Your task to perform on an android device: Search for "macbook" on target, select the first entry, add it to the cart, then select checkout. Image 0: 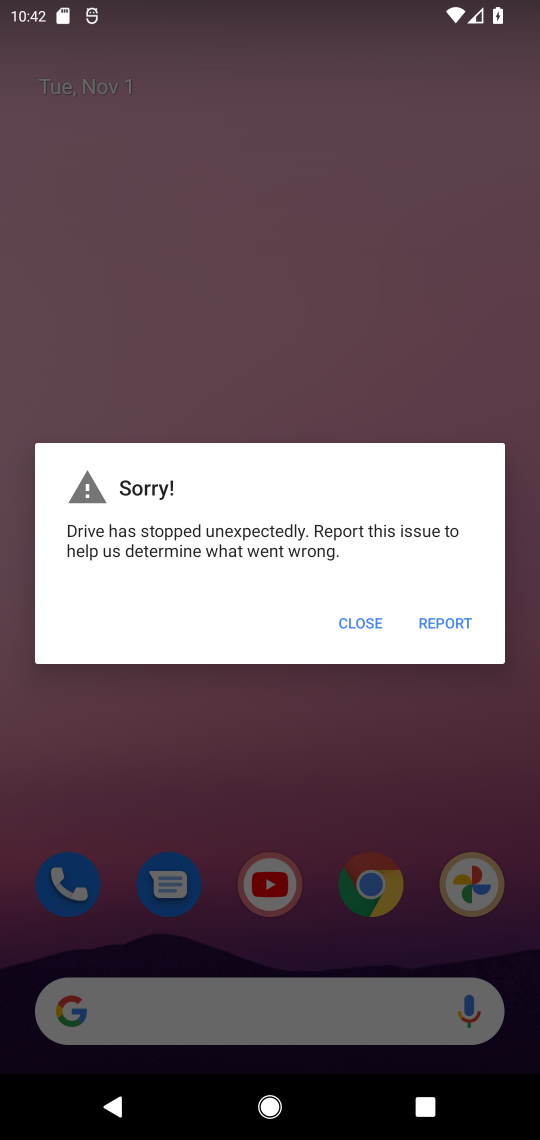
Step 0: press home button
Your task to perform on an android device: Search for "macbook" on target, select the first entry, add it to the cart, then select checkout. Image 1: 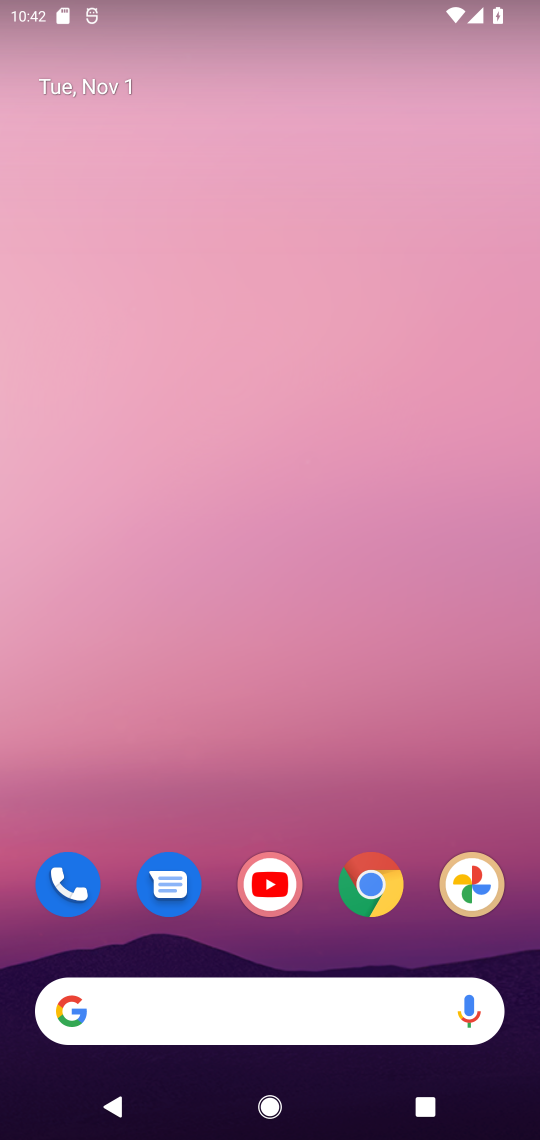
Step 1: click (359, 895)
Your task to perform on an android device: Search for "macbook" on target, select the first entry, add it to the cart, then select checkout. Image 2: 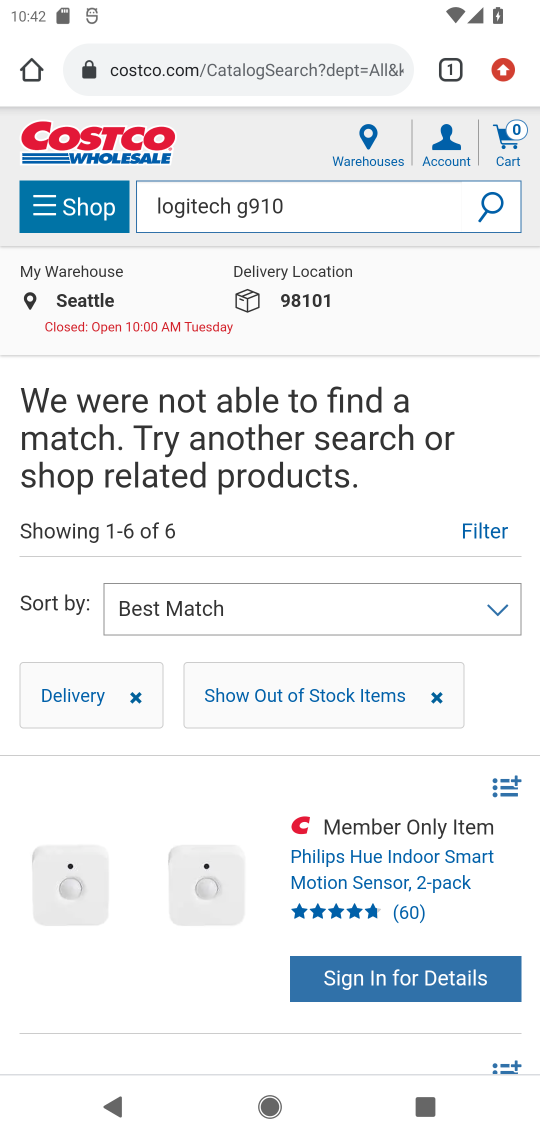
Step 2: click (216, 69)
Your task to perform on an android device: Search for "macbook" on target, select the first entry, add it to the cart, then select checkout. Image 3: 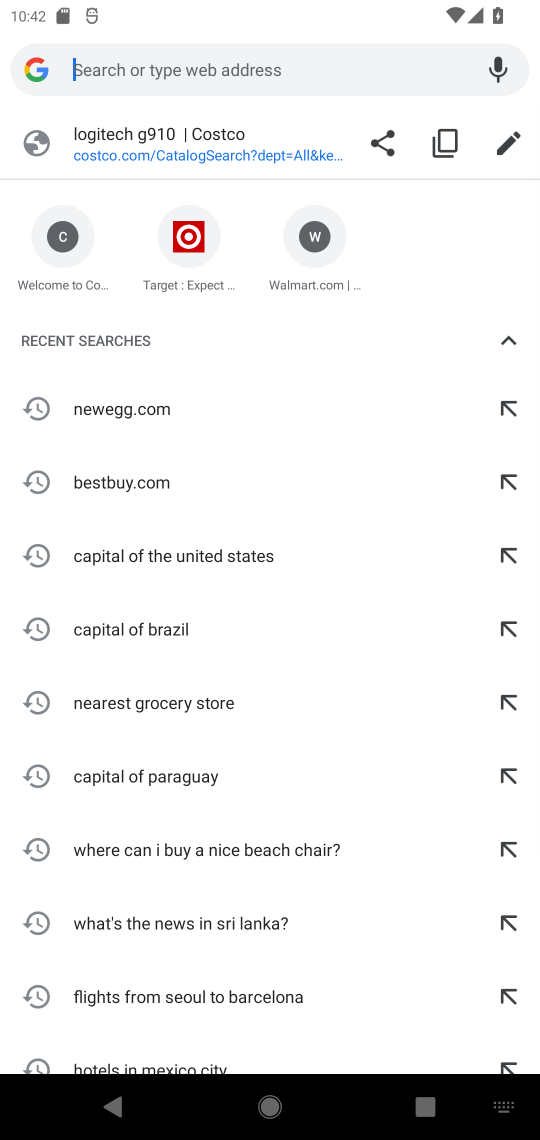
Step 3: click (193, 234)
Your task to perform on an android device: Search for "macbook" on target, select the first entry, add it to the cart, then select checkout. Image 4: 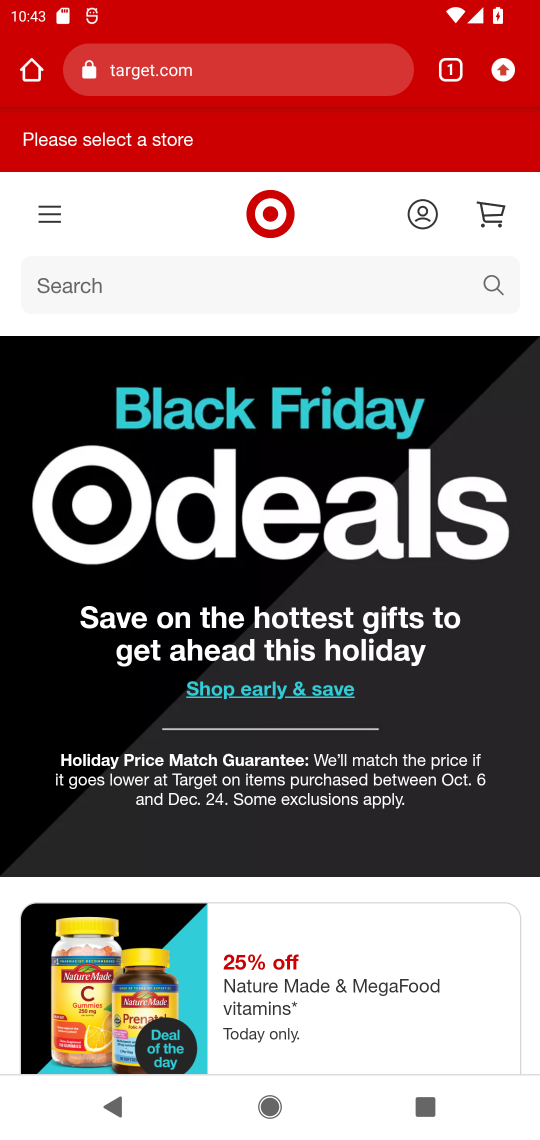
Step 4: click (492, 288)
Your task to perform on an android device: Search for "macbook" on target, select the first entry, add it to the cart, then select checkout. Image 5: 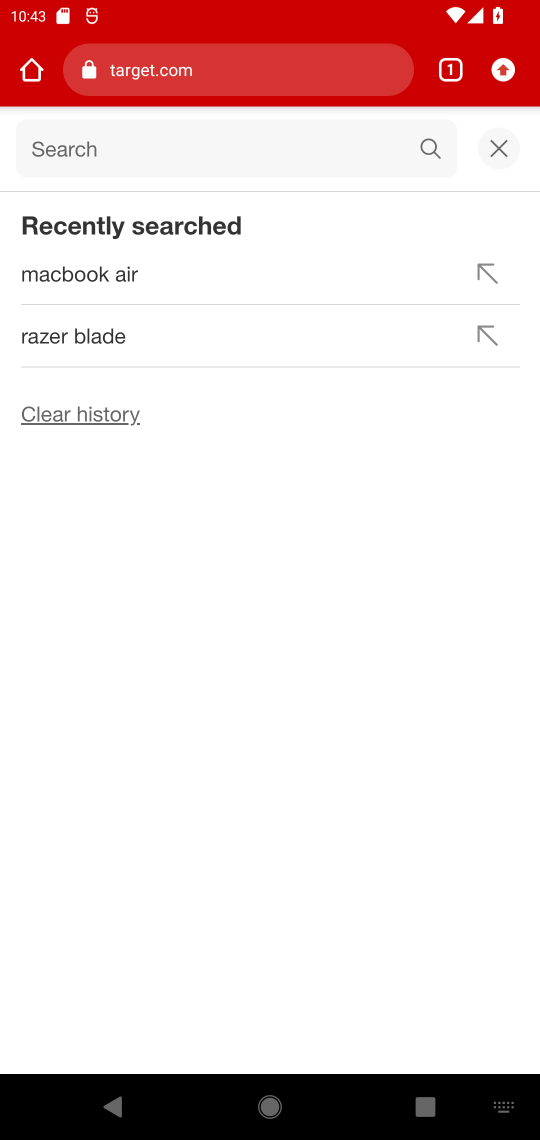
Step 5: type "macbook"
Your task to perform on an android device: Search for "macbook" on target, select the first entry, add it to the cart, then select checkout. Image 6: 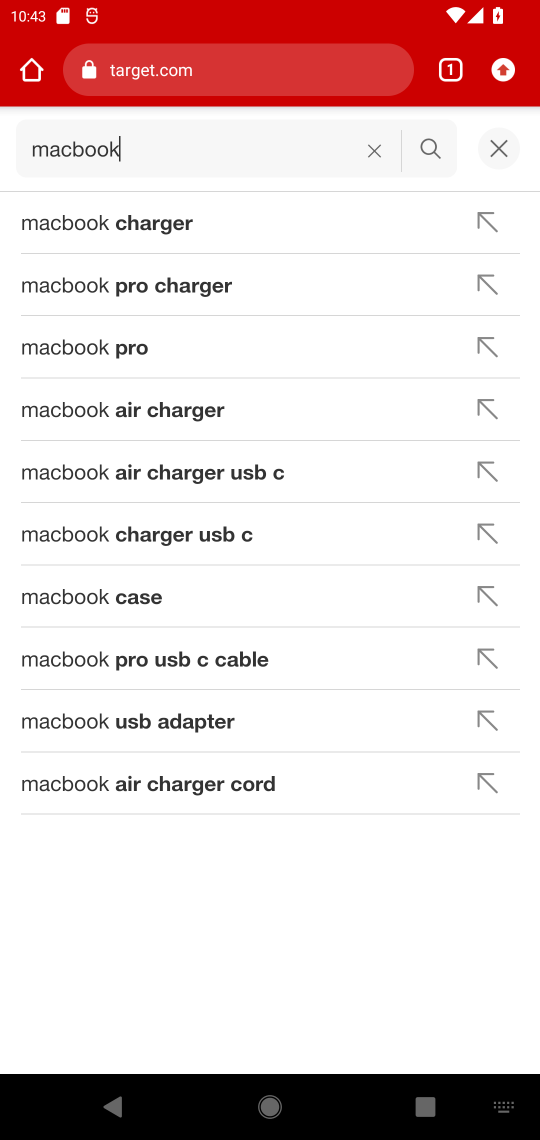
Step 6: click (429, 146)
Your task to perform on an android device: Search for "macbook" on target, select the first entry, add it to the cart, then select checkout. Image 7: 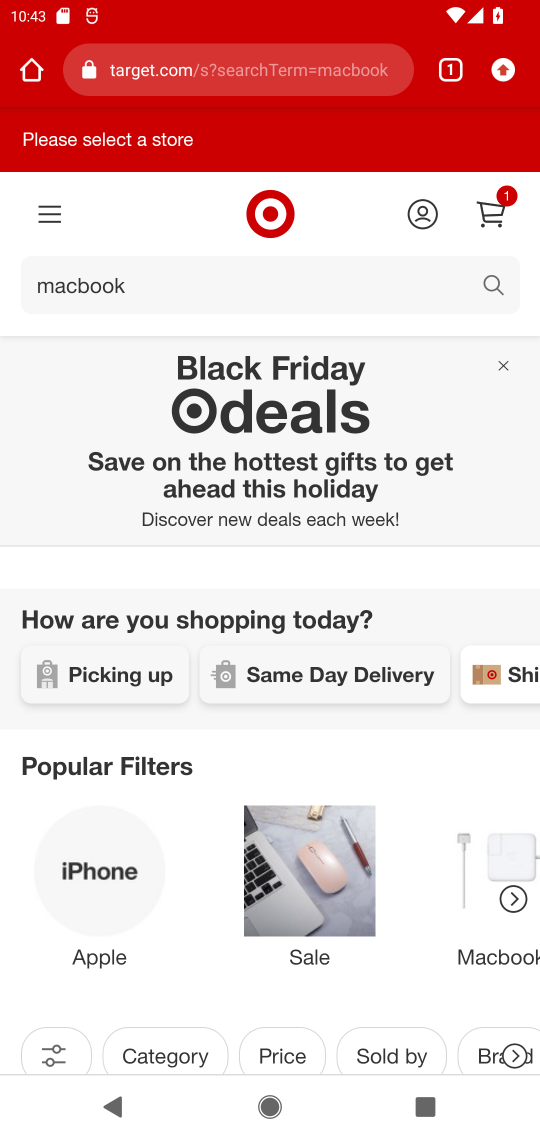
Step 7: drag from (269, 725) to (269, 332)
Your task to perform on an android device: Search for "macbook" on target, select the first entry, add it to the cart, then select checkout. Image 8: 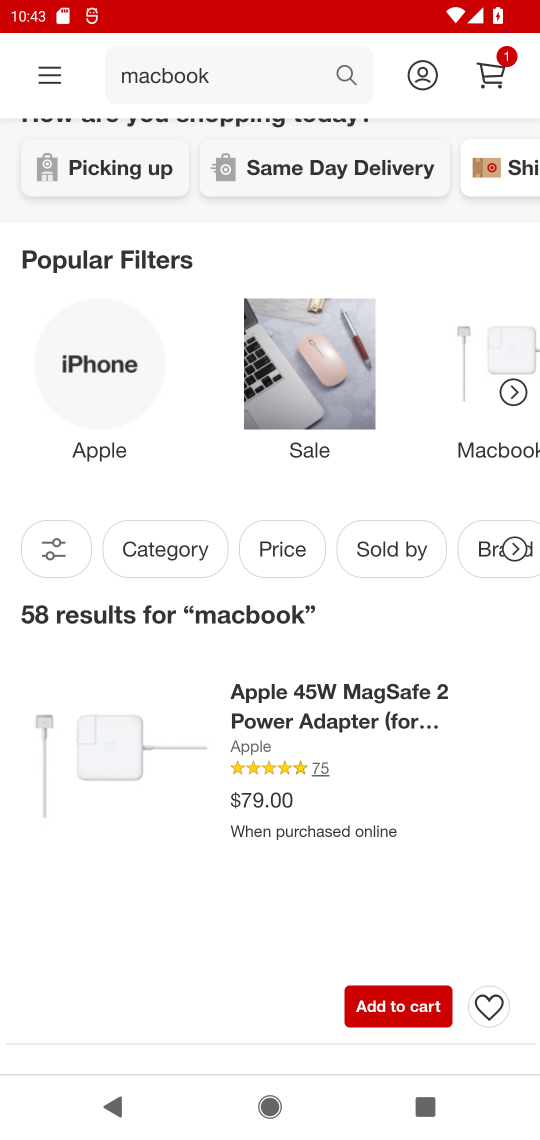
Step 8: click (401, 1018)
Your task to perform on an android device: Search for "macbook" on target, select the first entry, add it to the cart, then select checkout. Image 9: 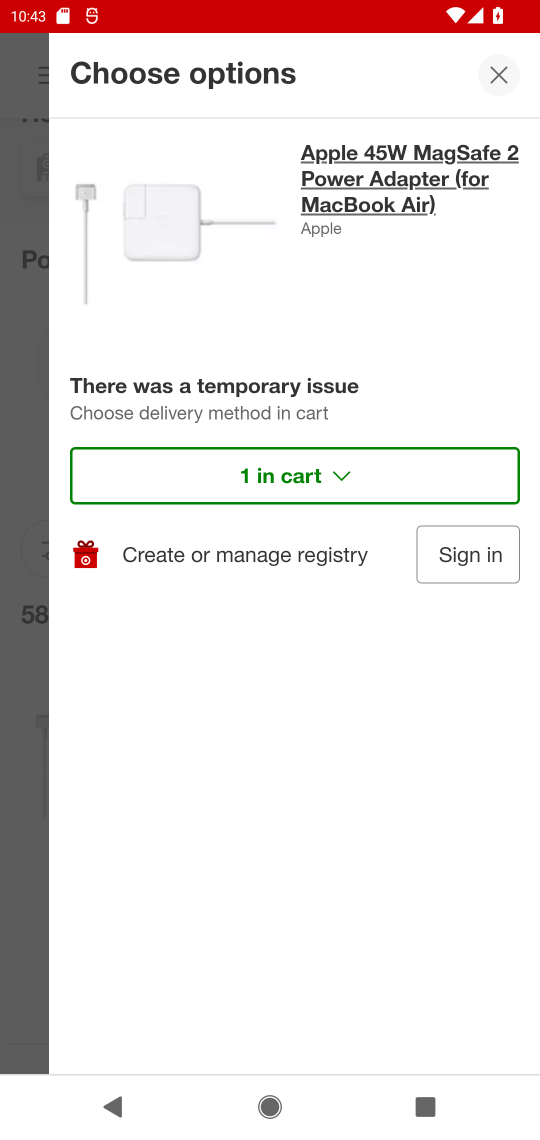
Step 9: click (284, 481)
Your task to perform on an android device: Search for "macbook" on target, select the first entry, add it to the cart, then select checkout. Image 10: 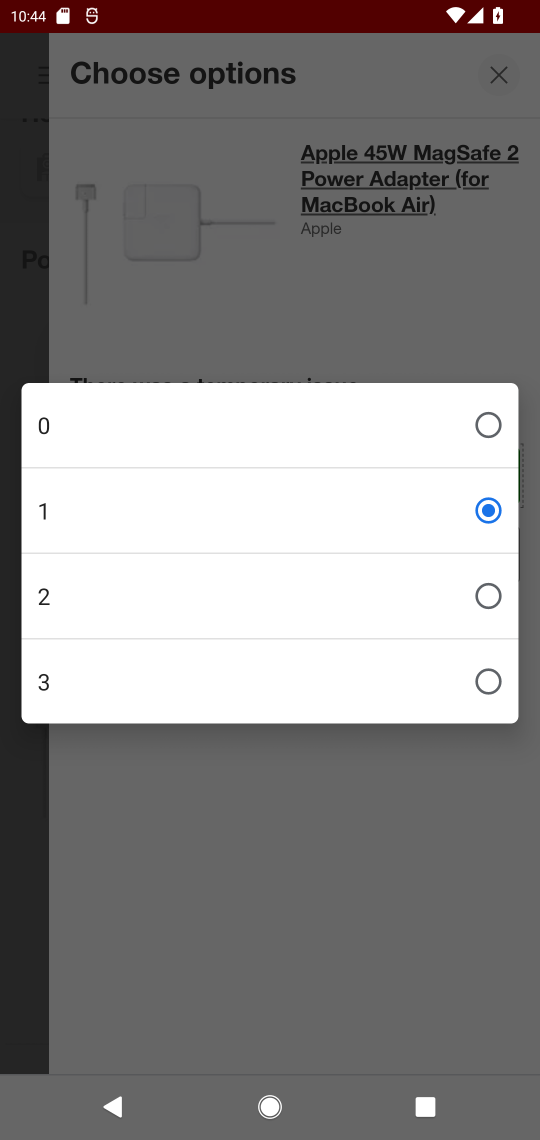
Step 10: click (337, 290)
Your task to perform on an android device: Search for "macbook" on target, select the first entry, add it to the cart, then select checkout. Image 11: 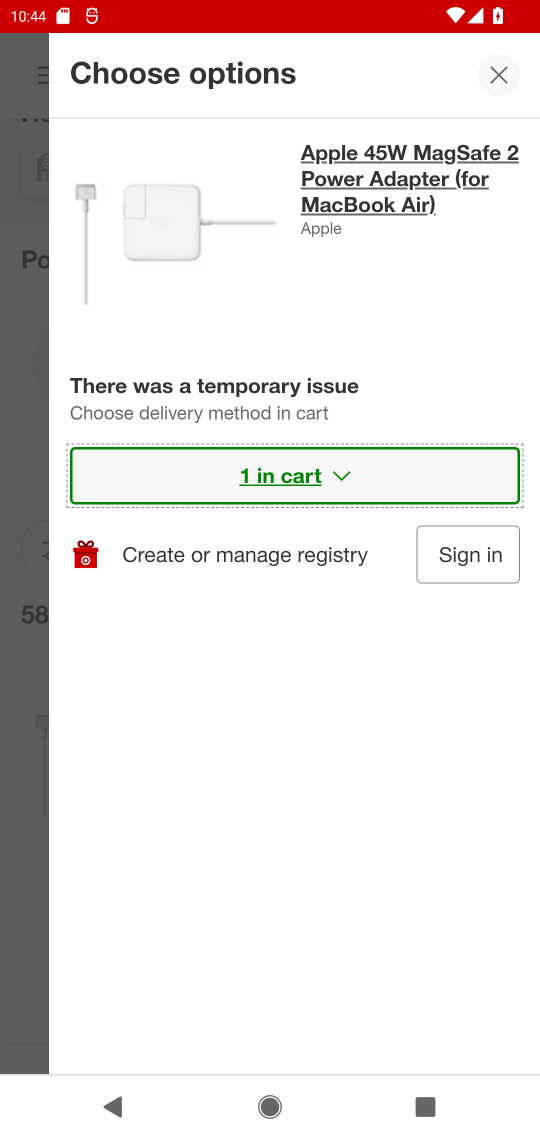
Step 11: click (500, 76)
Your task to perform on an android device: Search for "macbook" on target, select the first entry, add it to the cart, then select checkout. Image 12: 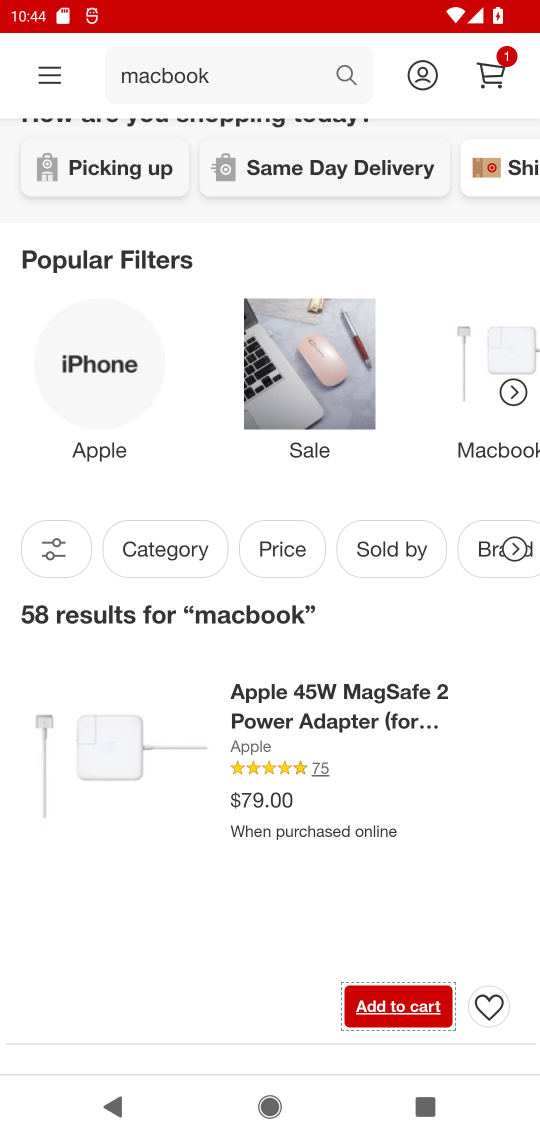
Step 12: click (487, 76)
Your task to perform on an android device: Search for "macbook" on target, select the first entry, add it to the cart, then select checkout. Image 13: 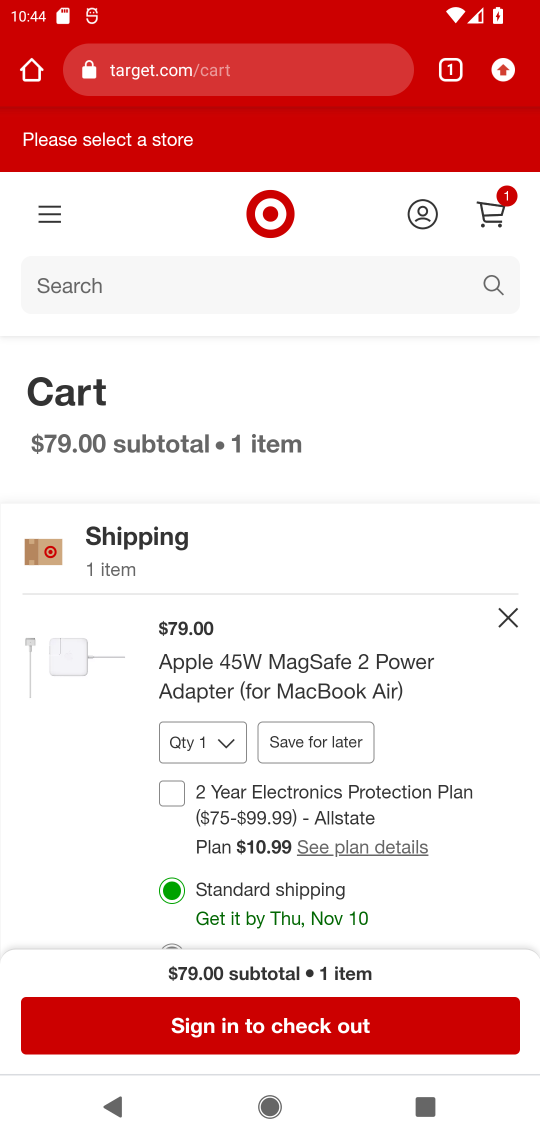
Step 13: click (278, 1026)
Your task to perform on an android device: Search for "macbook" on target, select the first entry, add it to the cart, then select checkout. Image 14: 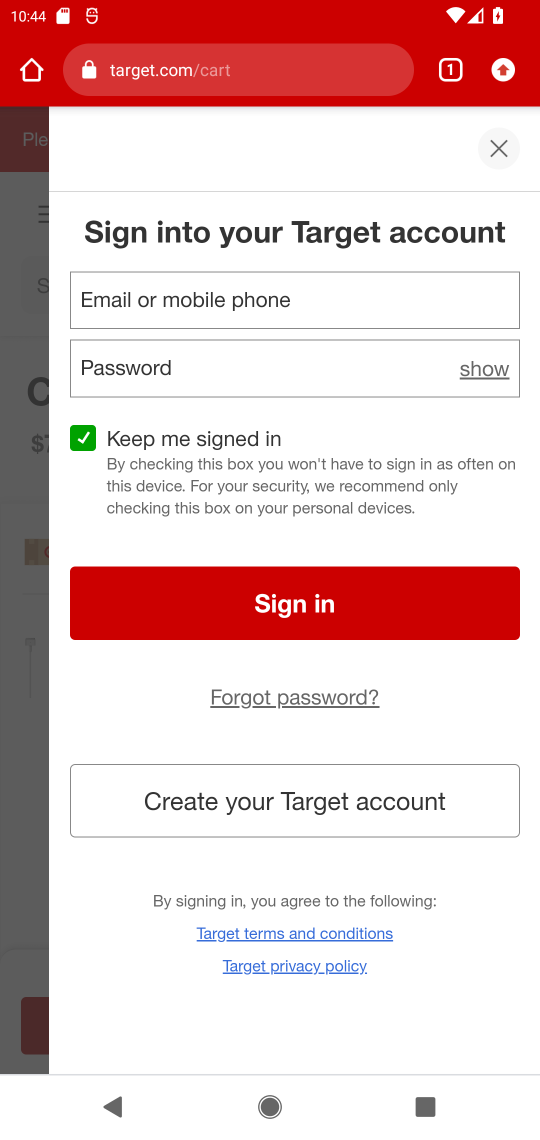
Step 14: click (495, 154)
Your task to perform on an android device: Search for "macbook" on target, select the first entry, add it to the cart, then select checkout. Image 15: 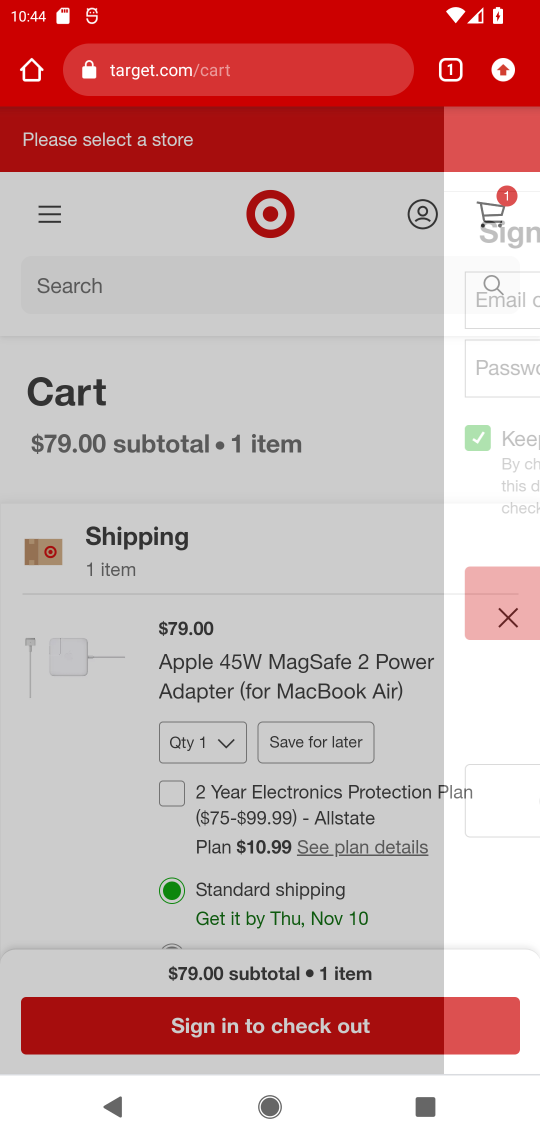
Step 15: click (217, 1030)
Your task to perform on an android device: Search for "macbook" on target, select the first entry, add it to the cart, then select checkout. Image 16: 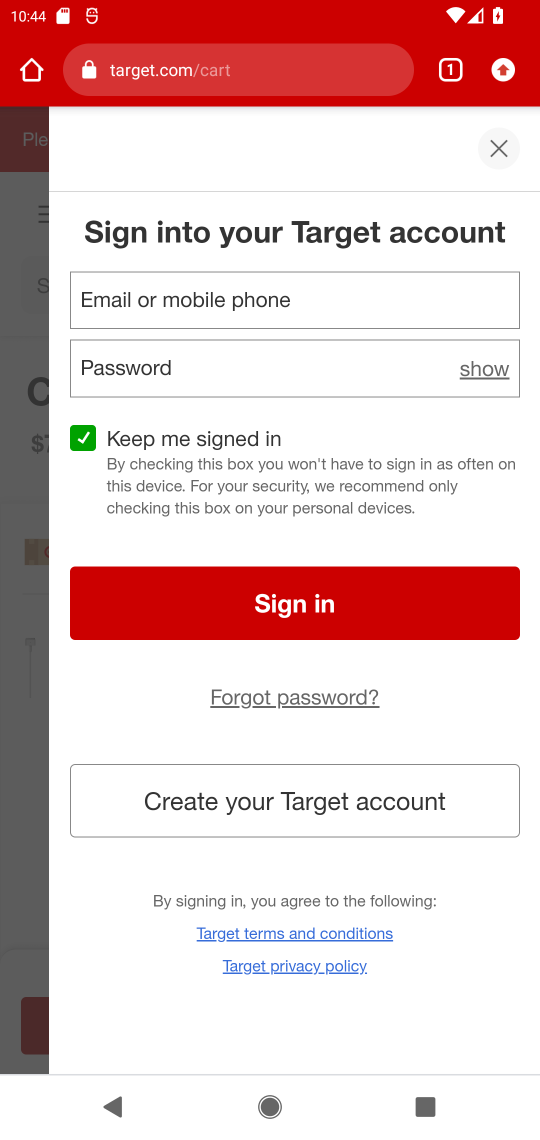
Step 16: task complete